Your task to perform on an android device: install app "Paramount+ | Peak Streaming" Image 0: 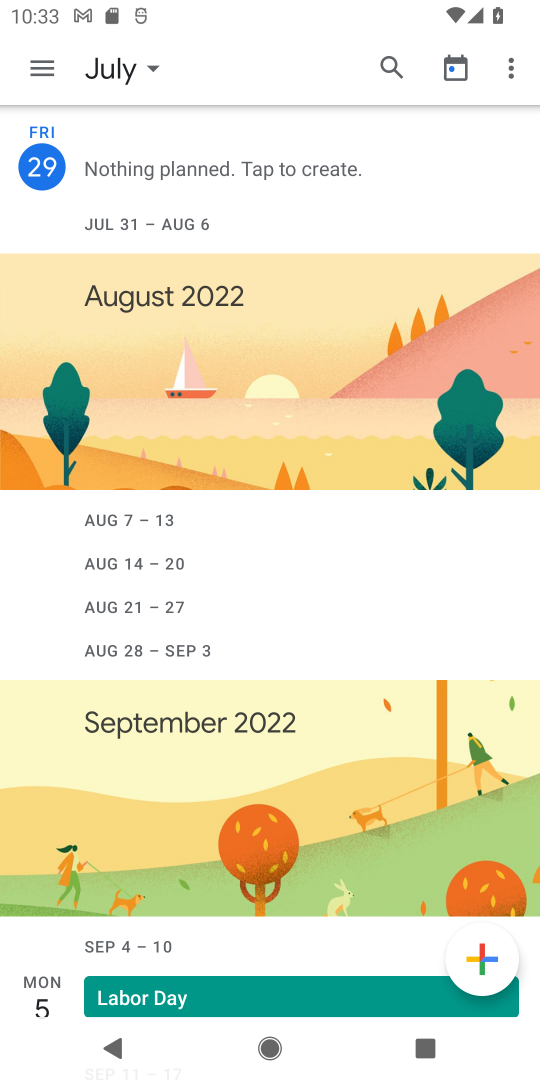
Step 0: press home button
Your task to perform on an android device: install app "Paramount+ | Peak Streaming" Image 1: 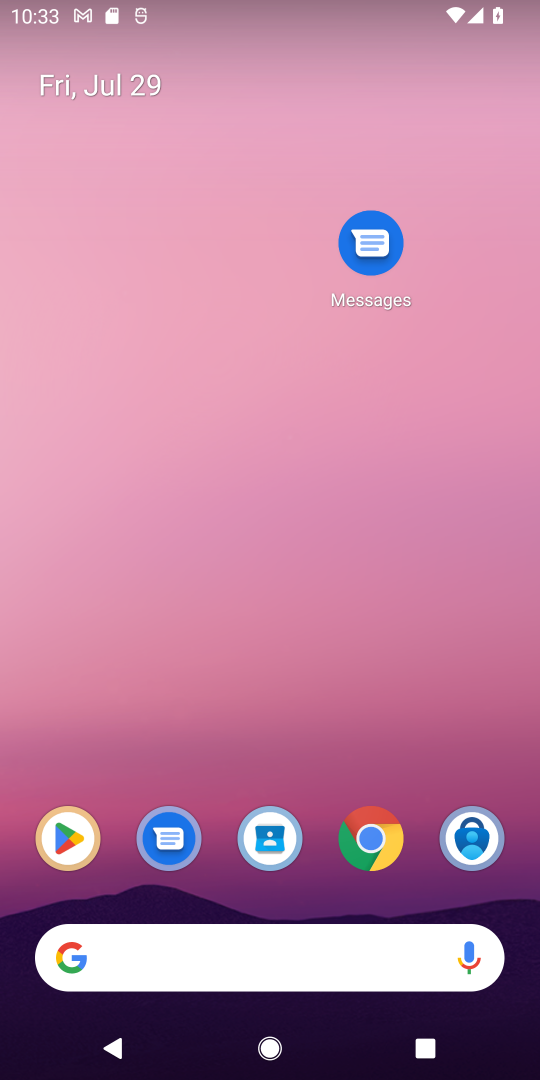
Step 1: click (77, 840)
Your task to perform on an android device: install app "Paramount+ | Peak Streaming" Image 2: 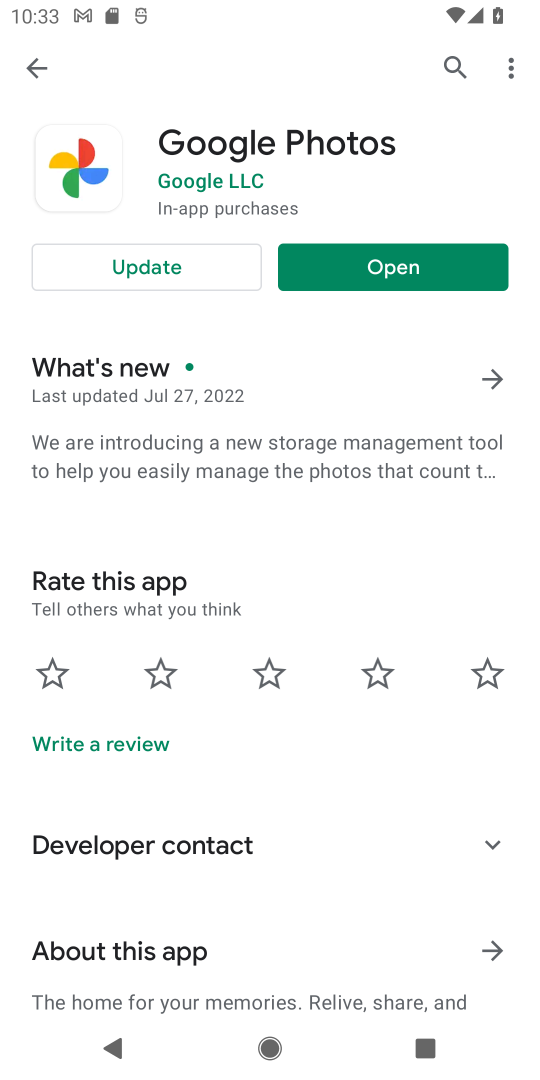
Step 2: click (32, 68)
Your task to perform on an android device: install app "Paramount+ | Peak Streaming" Image 3: 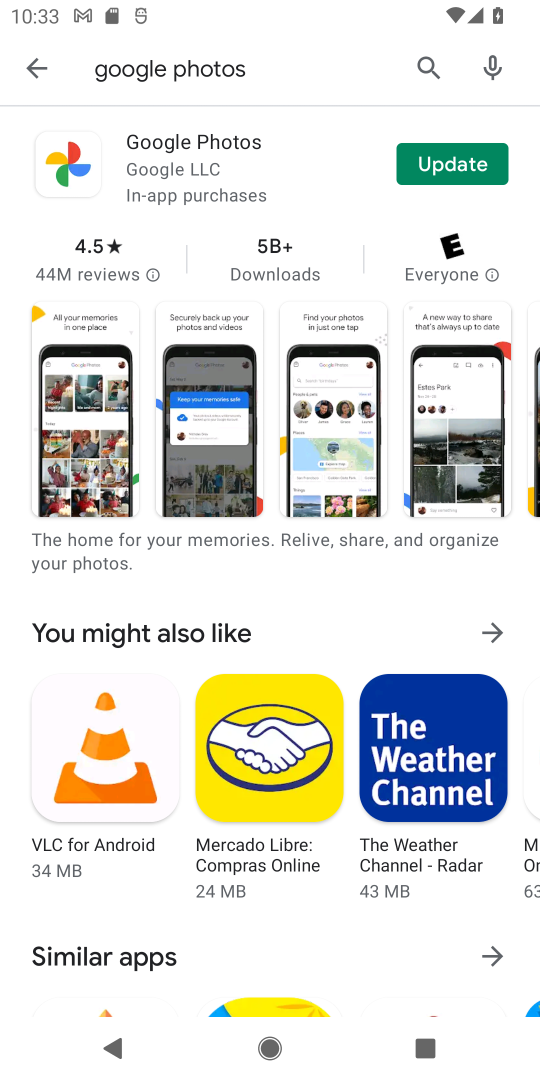
Step 3: click (248, 77)
Your task to perform on an android device: install app "Paramount+ | Peak Streaming" Image 4: 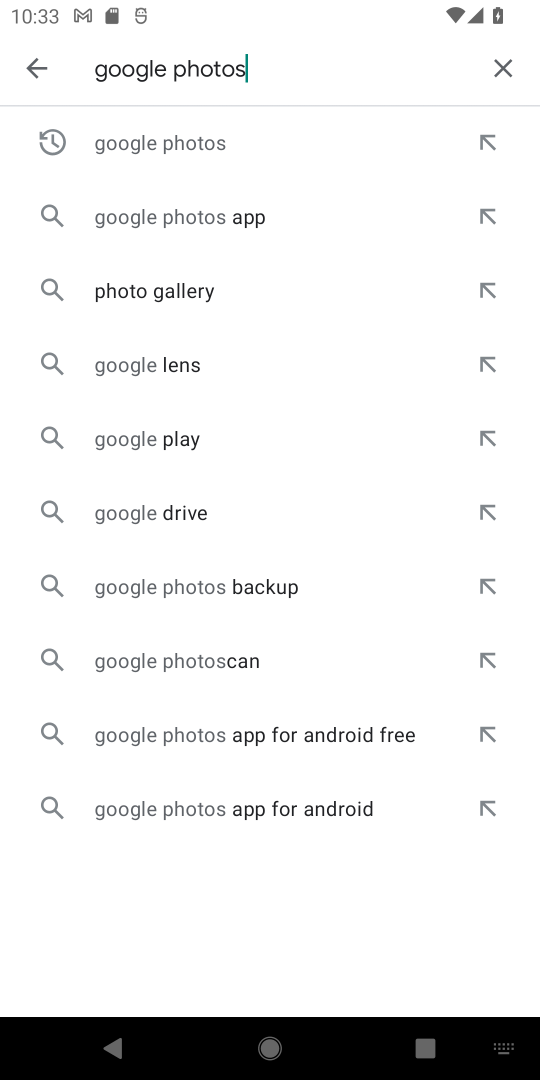
Step 4: click (506, 71)
Your task to perform on an android device: install app "Paramount+ | Peak Streaming" Image 5: 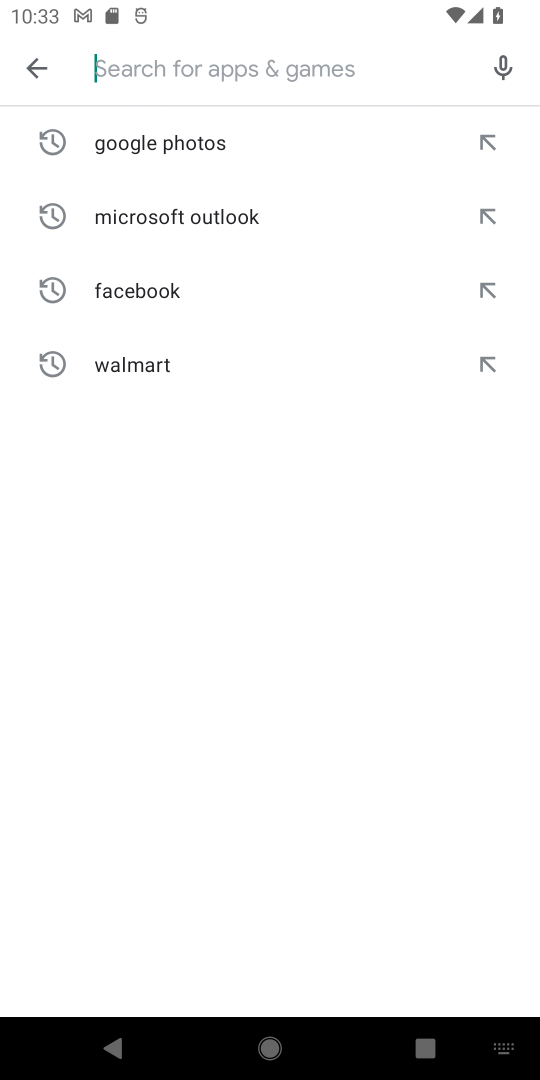
Step 5: type "Paramount +"
Your task to perform on an android device: install app "Paramount+ | Peak Streaming" Image 6: 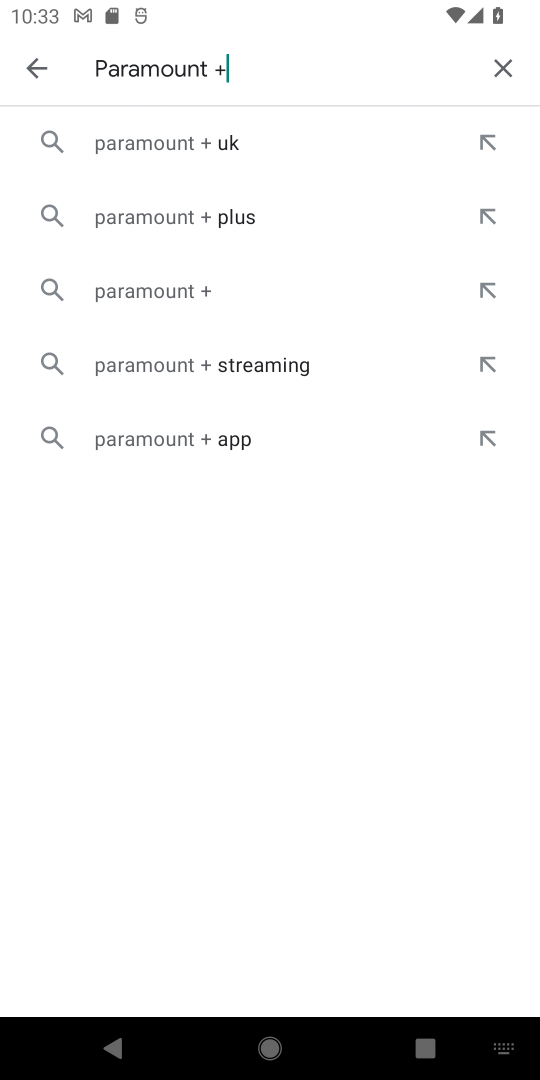
Step 6: click (144, 289)
Your task to perform on an android device: install app "Paramount+ | Peak Streaming" Image 7: 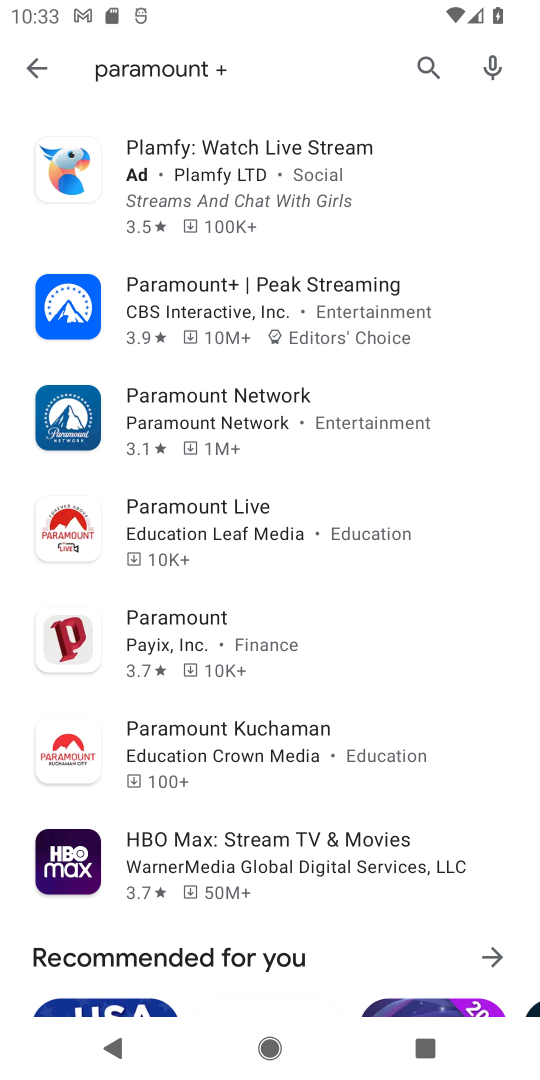
Step 7: click (296, 337)
Your task to perform on an android device: install app "Paramount+ | Peak Streaming" Image 8: 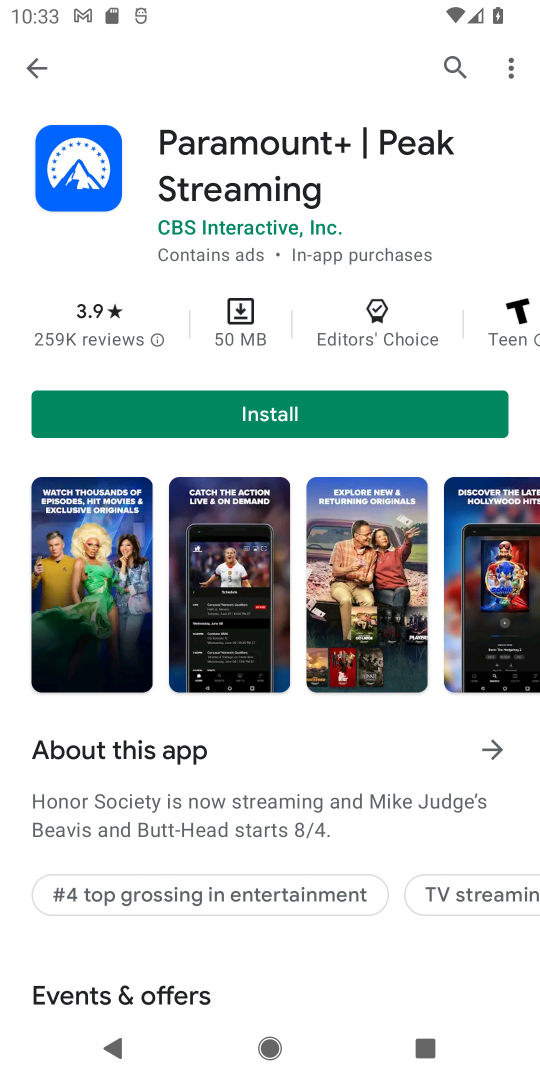
Step 8: click (255, 420)
Your task to perform on an android device: install app "Paramount+ | Peak Streaming" Image 9: 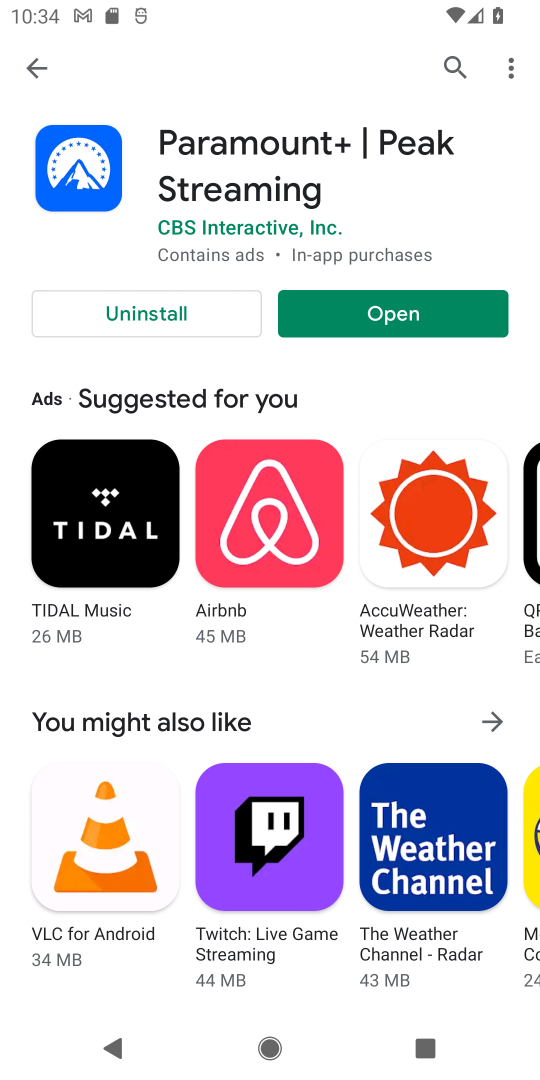
Step 9: task complete